Your task to perform on an android device: toggle sleep mode Image 0: 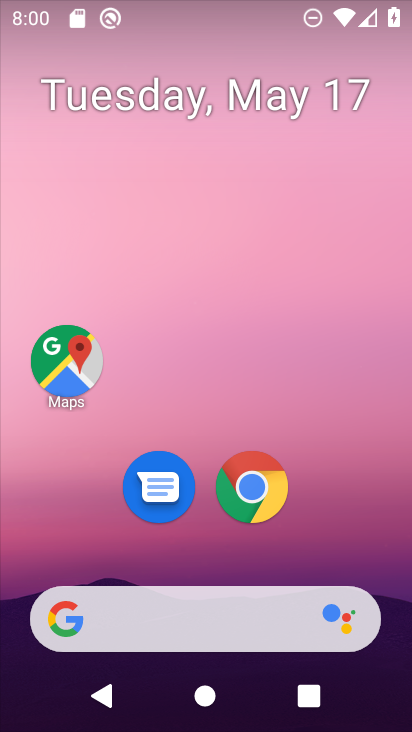
Step 0: drag from (259, 571) to (179, 232)
Your task to perform on an android device: toggle sleep mode Image 1: 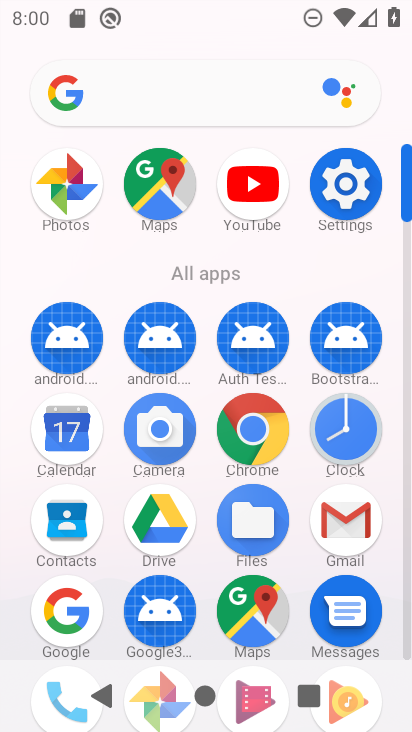
Step 1: click (334, 202)
Your task to perform on an android device: toggle sleep mode Image 2: 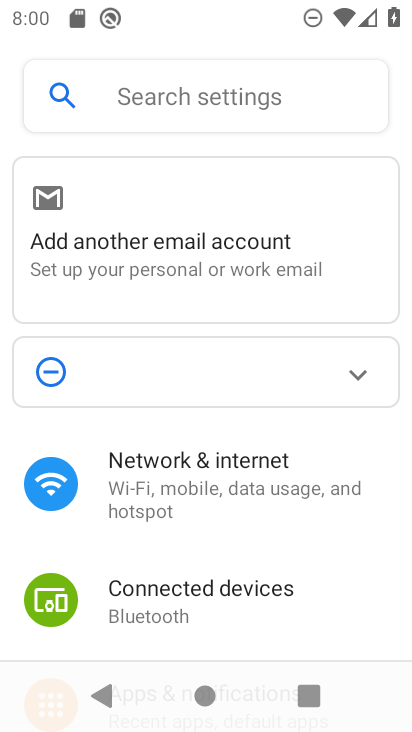
Step 2: click (143, 92)
Your task to perform on an android device: toggle sleep mode Image 3: 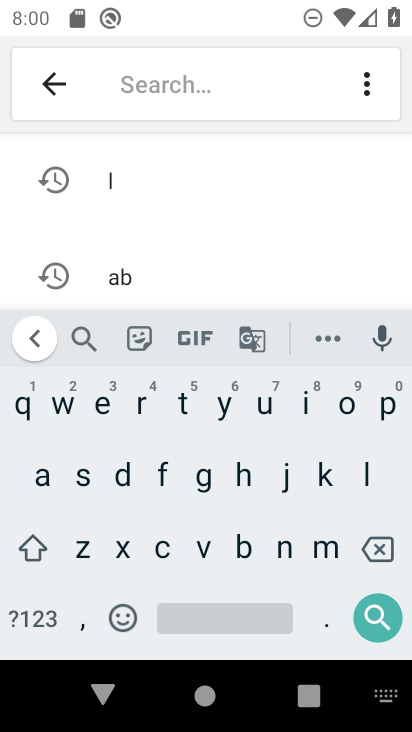
Step 3: click (83, 478)
Your task to perform on an android device: toggle sleep mode Image 4: 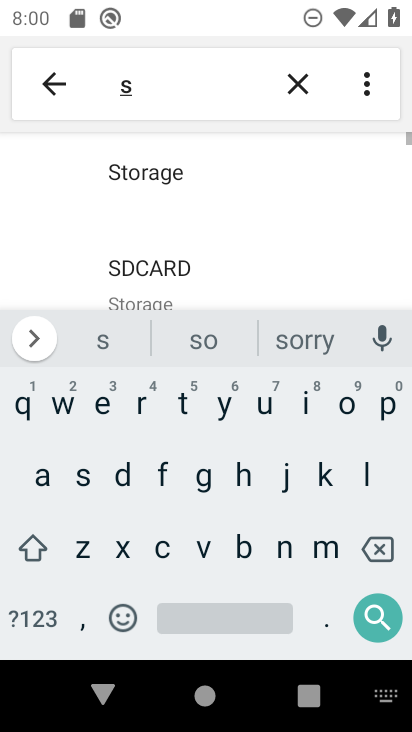
Step 4: click (371, 478)
Your task to perform on an android device: toggle sleep mode Image 5: 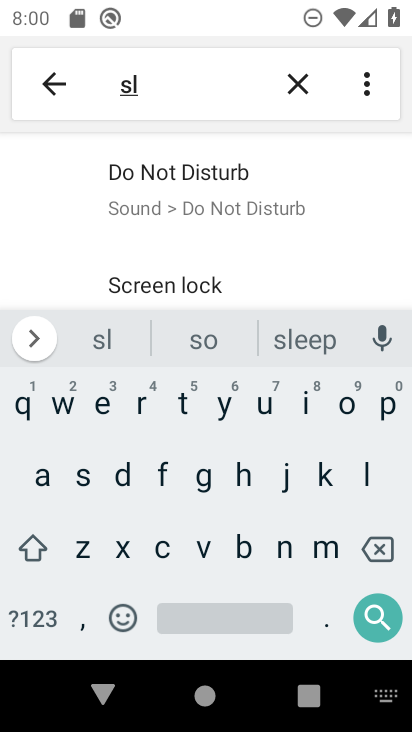
Step 5: click (100, 411)
Your task to perform on an android device: toggle sleep mode Image 6: 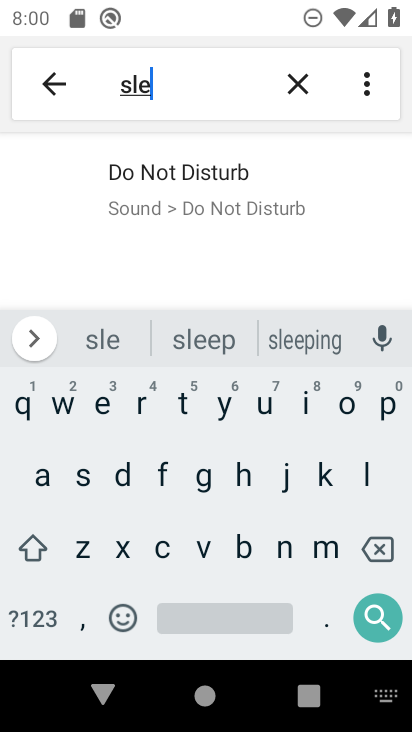
Step 6: click (182, 175)
Your task to perform on an android device: toggle sleep mode Image 7: 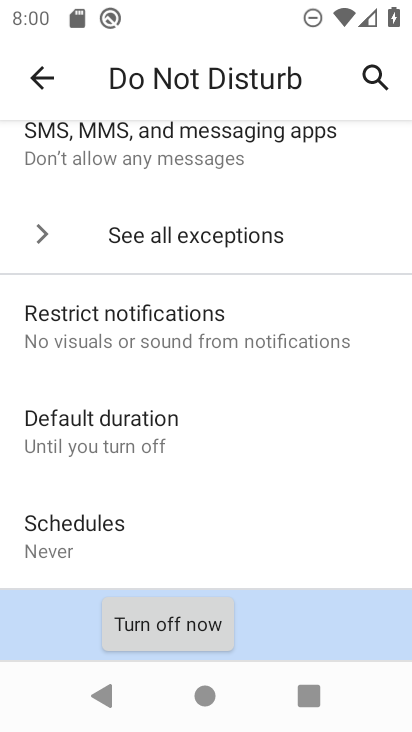
Step 7: click (150, 625)
Your task to perform on an android device: toggle sleep mode Image 8: 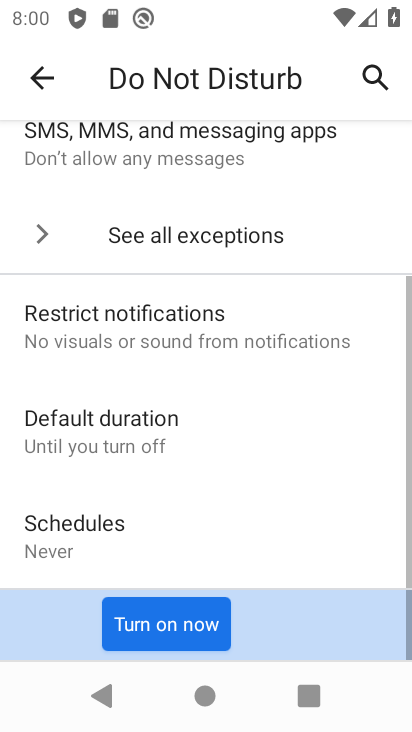
Step 8: task complete